Your task to perform on an android device: Open Google Chrome and click the shortcut for Amazon.com Image 0: 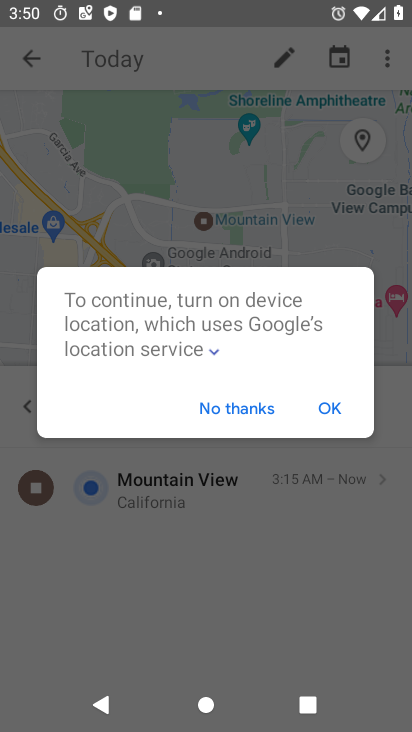
Step 0: press home button
Your task to perform on an android device: Open Google Chrome and click the shortcut for Amazon.com Image 1: 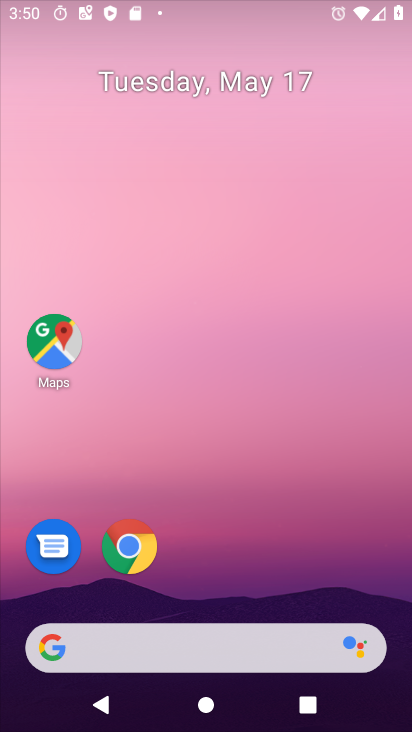
Step 1: drag from (200, 364) to (225, 116)
Your task to perform on an android device: Open Google Chrome and click the shortcut for Amazon.com Image 2: 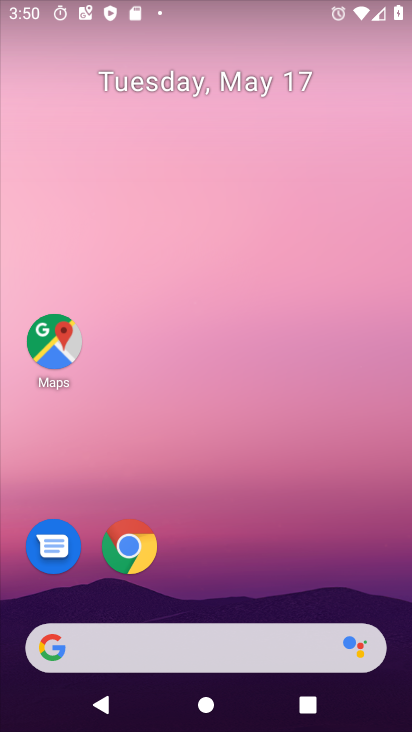
Step 2: drag from (197, 461) to (251, 82)
Your task to perform on an android device: Open Google Chrome and click the shortcut for Amazon.com Image 3: 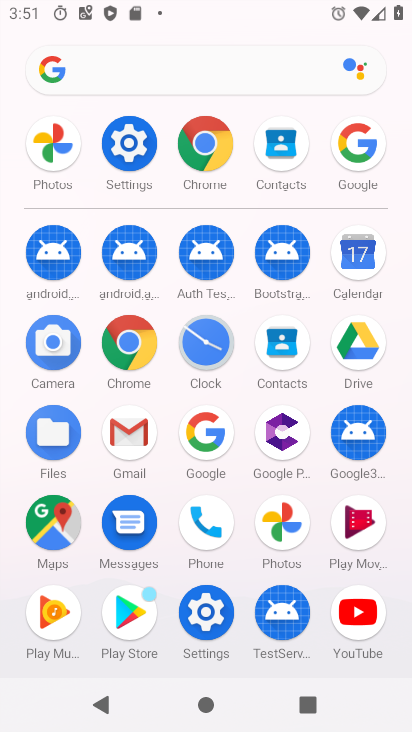
Step 3: click (225, 150)
Your task to perform on an android device: Open Google Chrome and click the shortcut for Amazon.com Image 4: 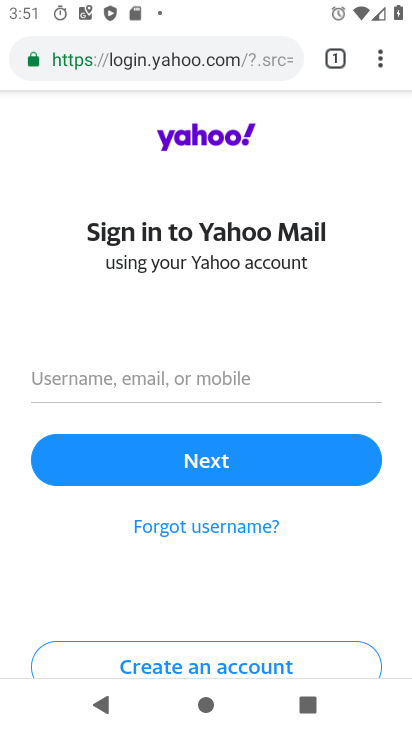
Step 4: drag from (295, 64) to (285, 272)
Your task to perform on an android device: Open Google Chrome and click the shortcut for Amazon.com Image 5: 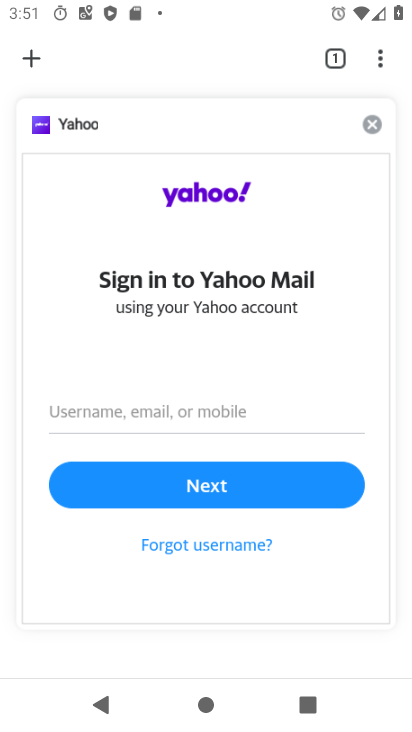
Step 5: click (36, 66)
Your task to perform on an android device: Open Google Chrome and click the shortcut for Amazon.com Image 6: 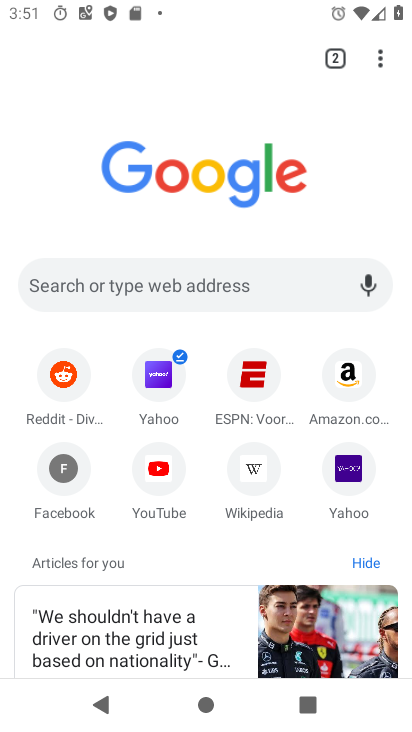
Step 6: click (349, 373)
Your task to perform on an android device: Open Google Chrome and click the shortcut for Amazon.com Image 7: 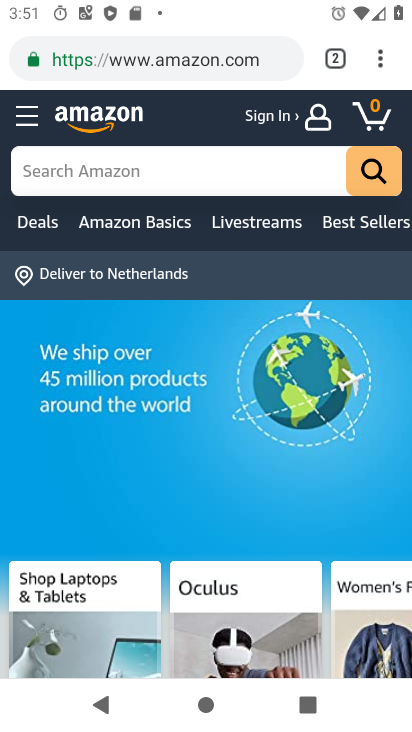
Step 7: task complete